Your task to perform on an android device: open app "Google Chat" Image 0: 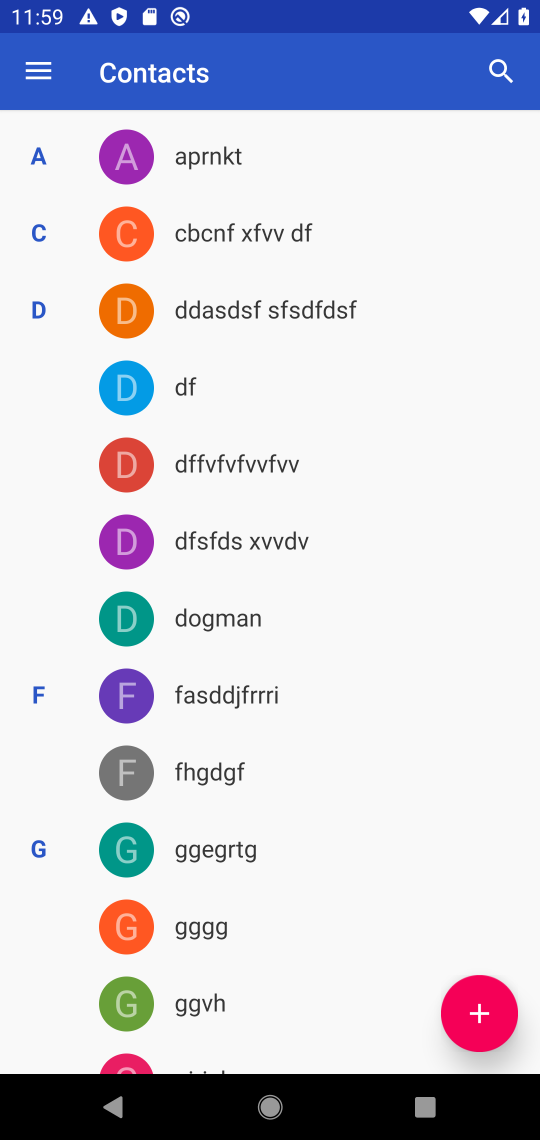
Step 0: press home button
Your task to perform on an android device: open app "Google Chat" Image 1: 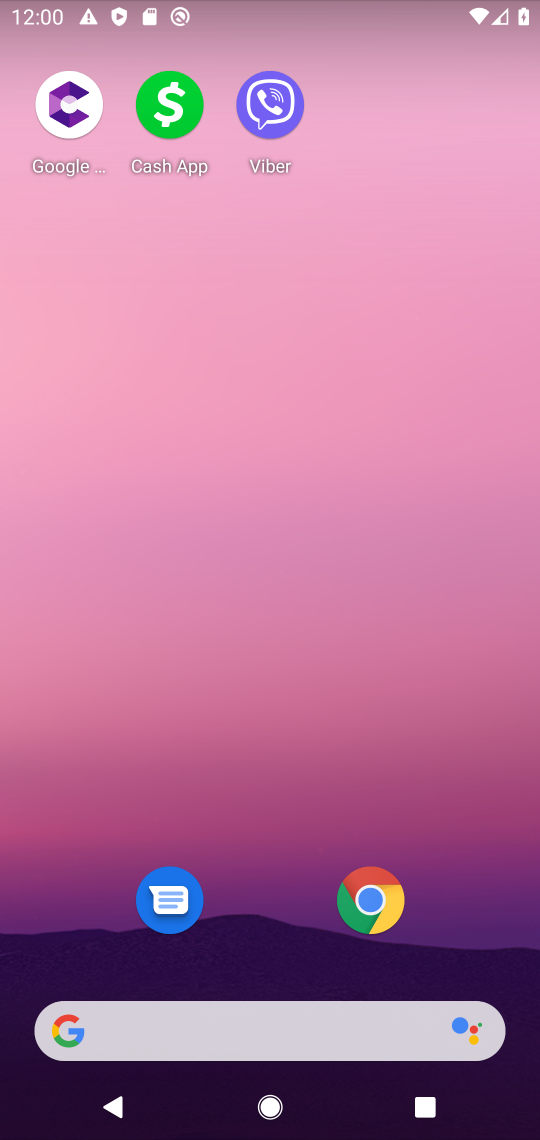
Step 1: drag from (212, 975) to (304, 266)
Your task to perform on an android device: open app "Google Chat" Image 2: 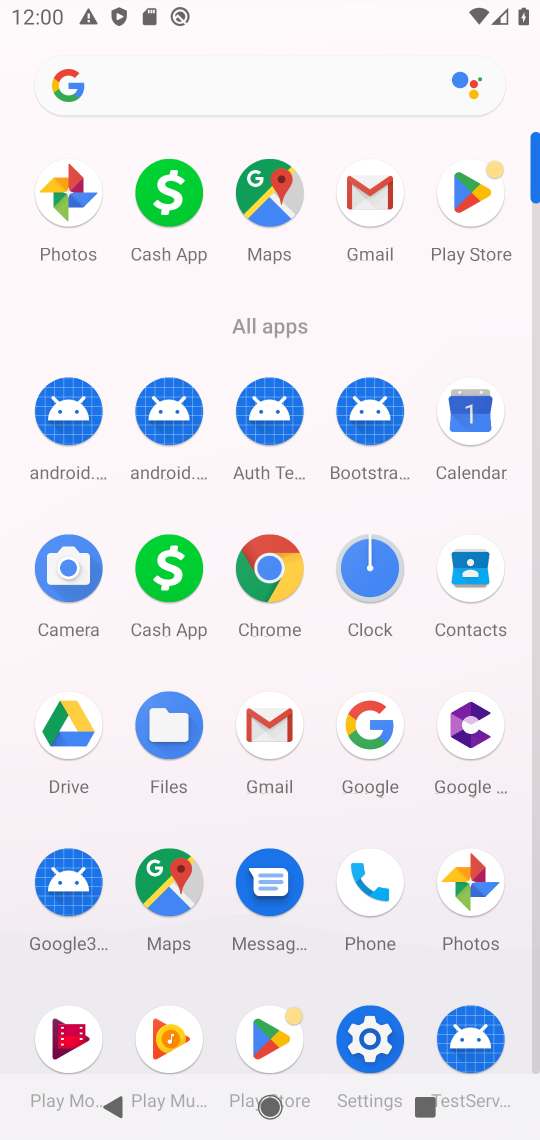
Step 2: click (478, 182)
Your task to perform on an android device: open app "Google Chat" Image 3: 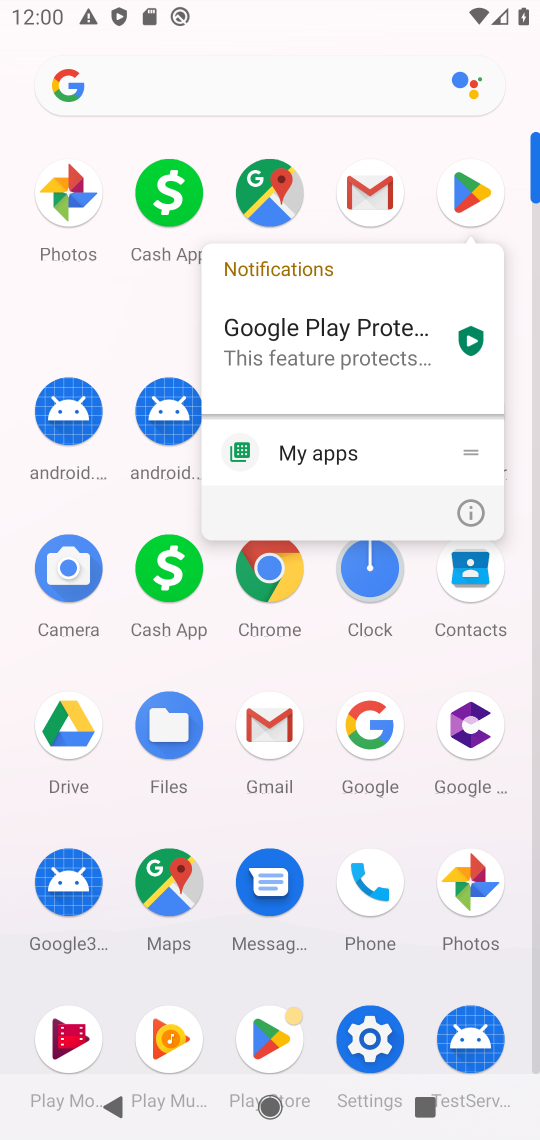
Step 3: click (472, 206)
Your task to perform on an android device: open app "Google Chat" Image 4: 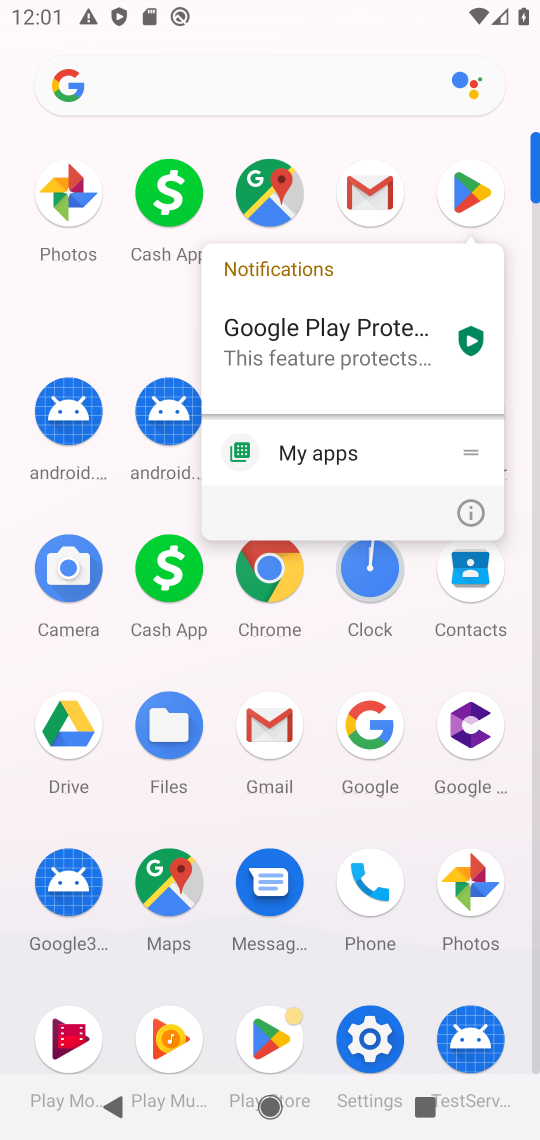
Step 4: click (472, 193)
Your task to perform on an android device: open app "Google Chat" Image 5: 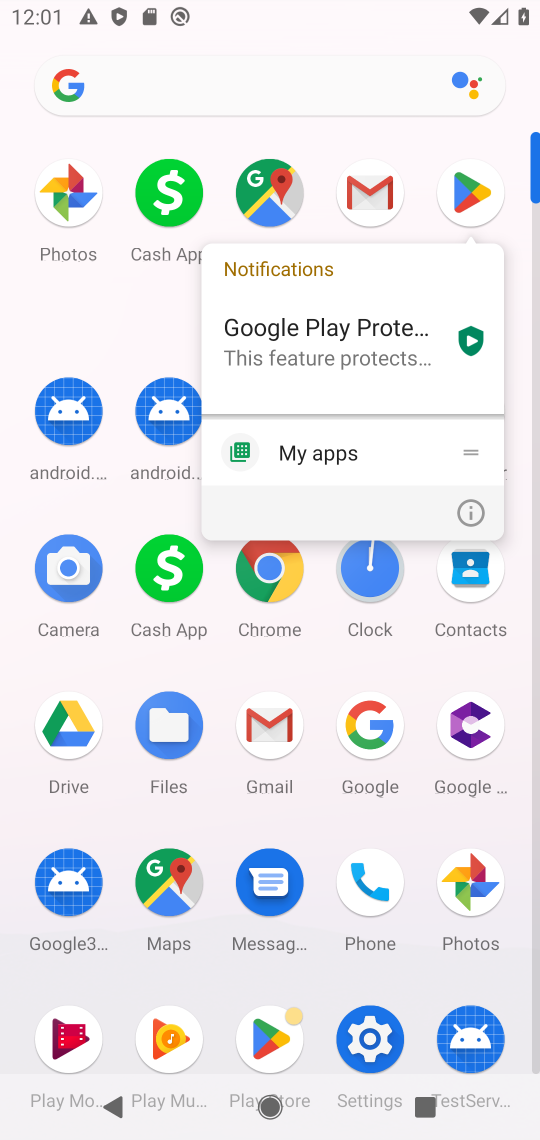
Step 5: click (472, 193)
Your task to perform on an android device: open app "Google Chat" Image 6: 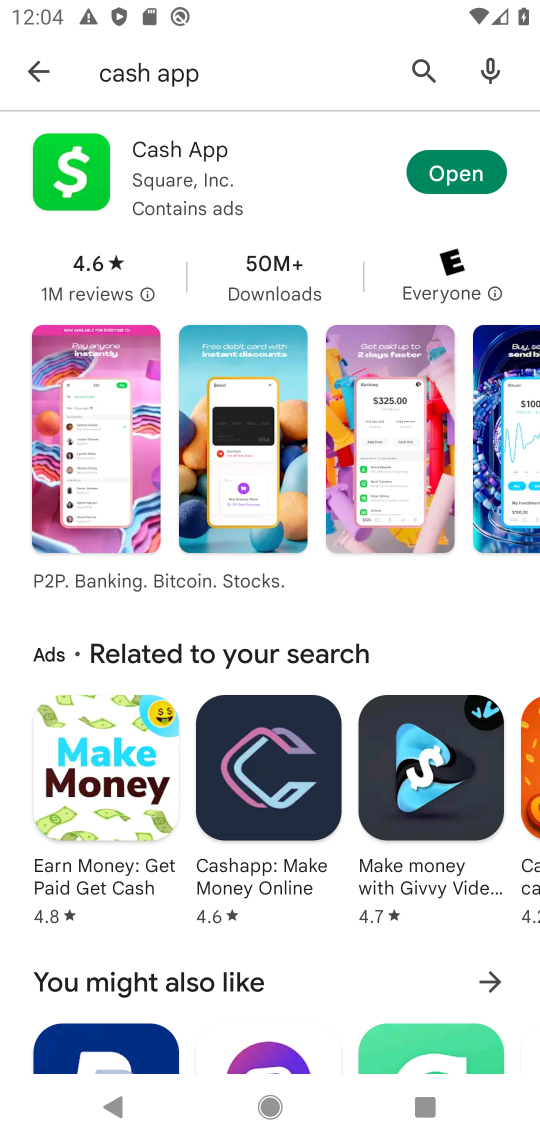
Step 6: click (431, 56)
Your task to perform on an android device: open app "Google Chat" Image 7: 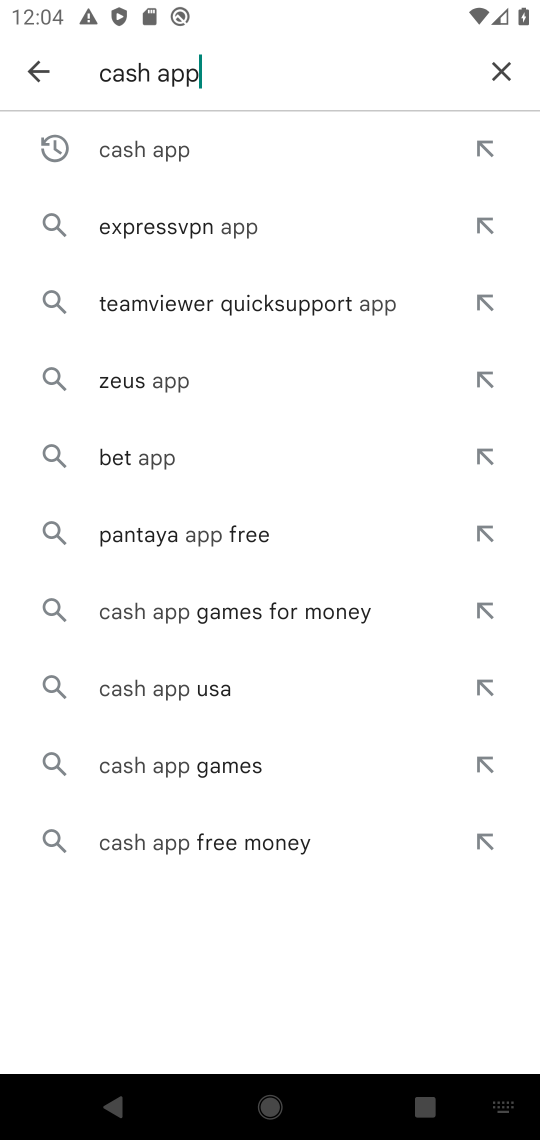
Step 7: click (512, 62)
Your task to perform on an android device: open app "Google Chat" Image 8: 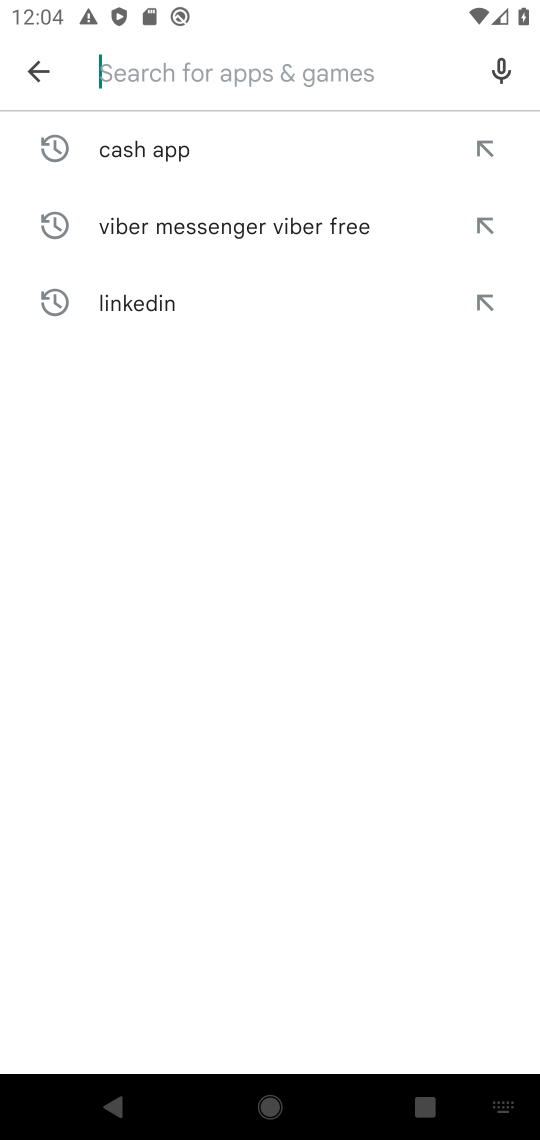
Step 8: type "google chat"
Your task to perform on an android device: open app "Google Chat" Image 9: 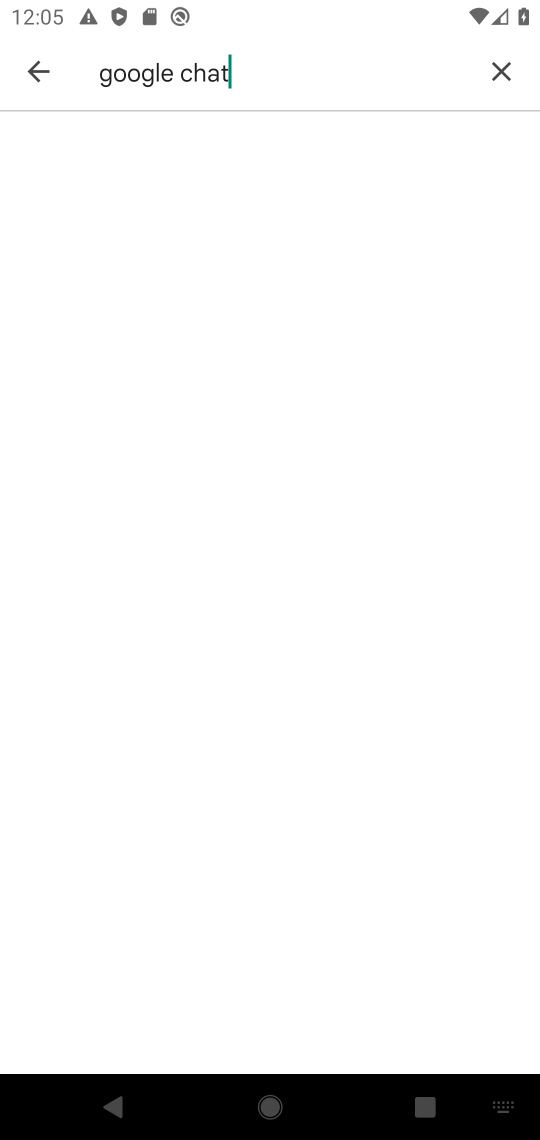
Step 9: type ""
Your task to perform on an android device: open app "Google Chat" Image 10: 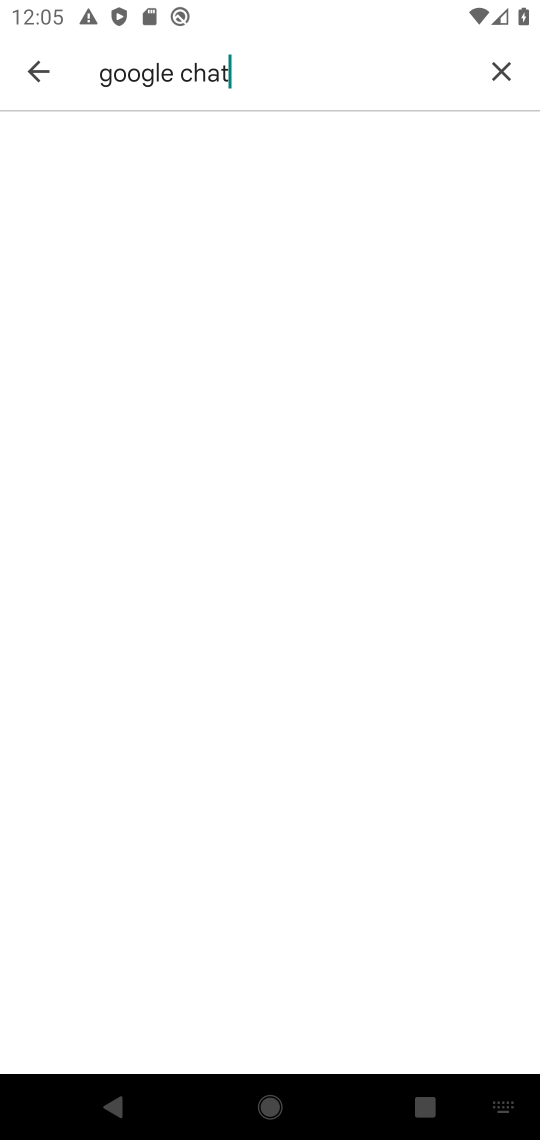
Step 10: click (425, 78)
Your task to perform on an android device: open app "Google Chat" Image 11: 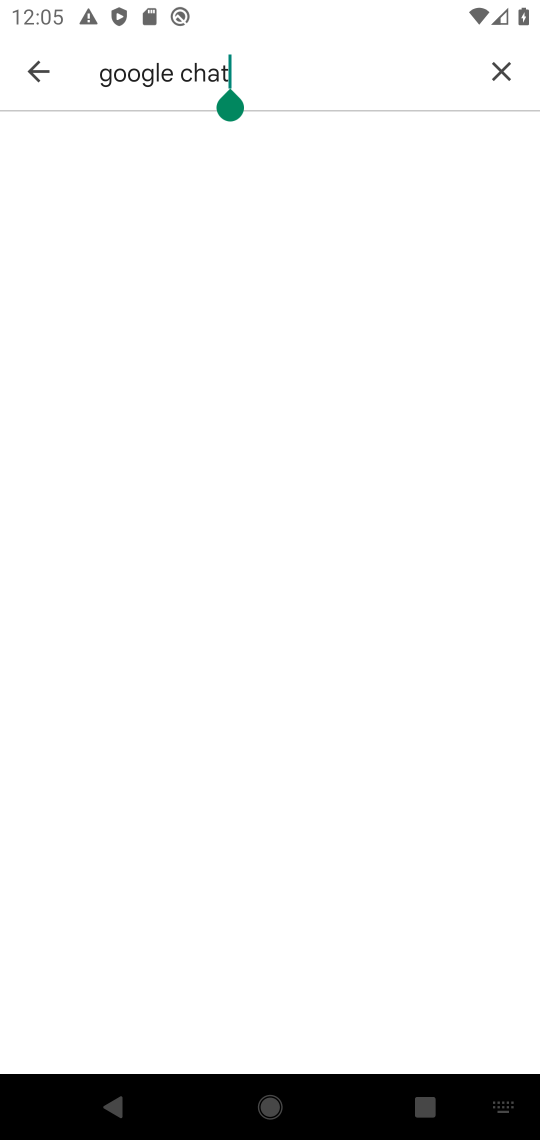
Step 11: click (393, 91)
Your task to perform on an android device: open app "Google Chat" Image 12: 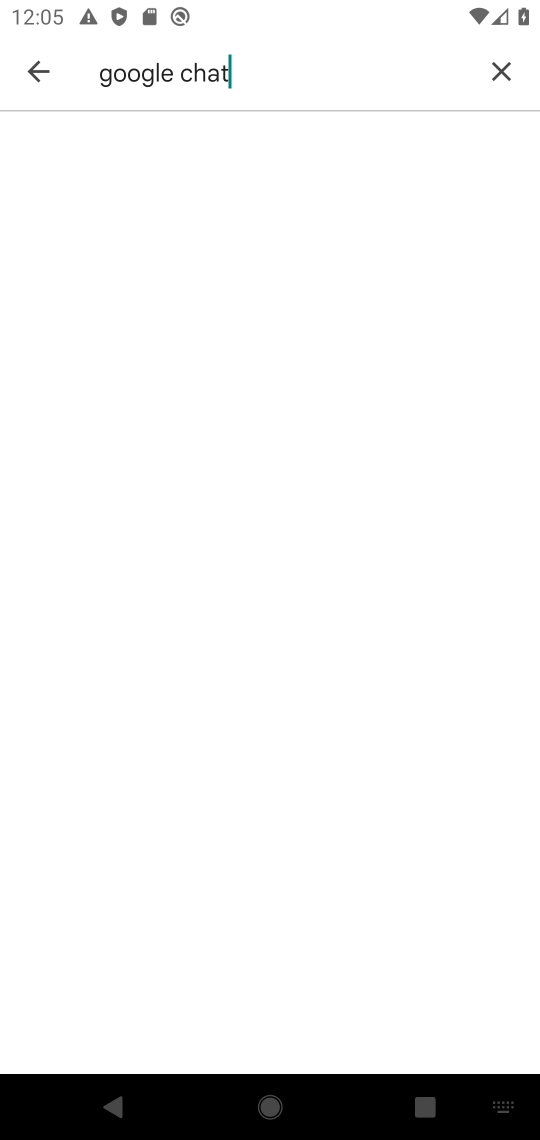
Step 12: press enter
Your task to perform on an android device: open app "Google Chat" Image 13: 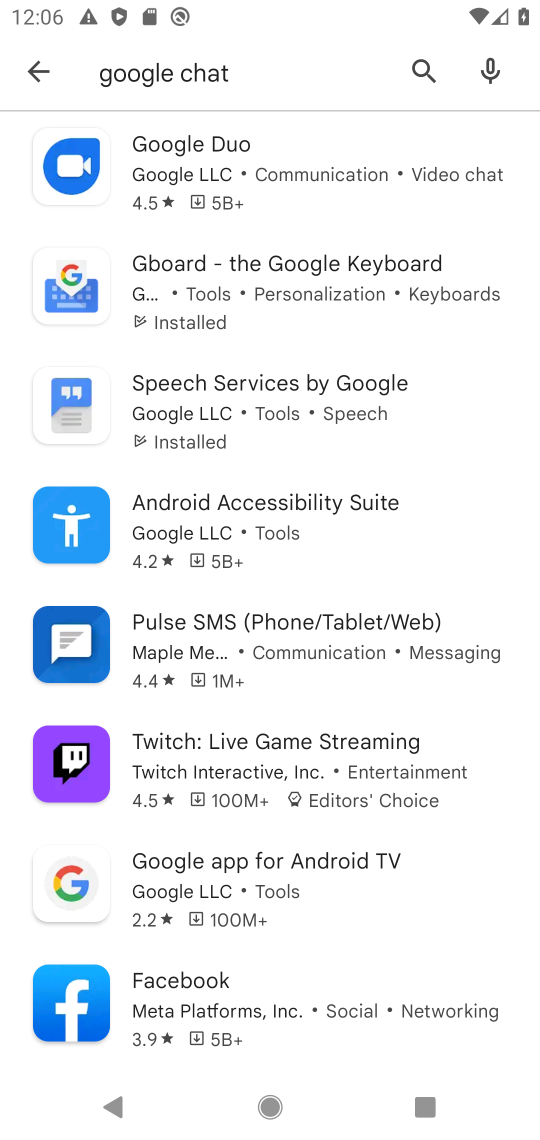
Step 13: task complete